Your task to perform on an android device: add a contact in the contacts app Image 0: 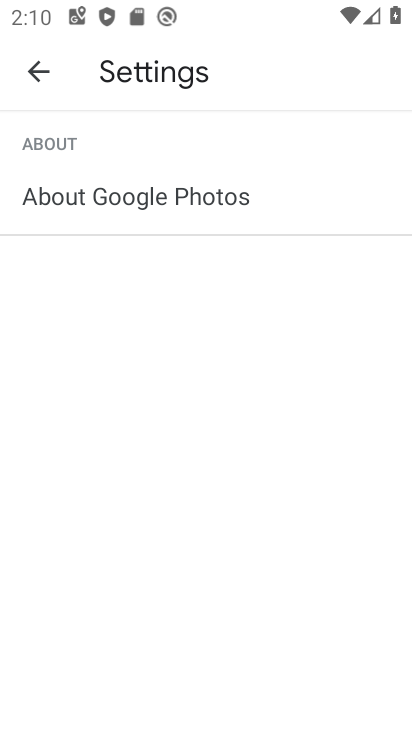
Step 0: press home button
Your task to perform on an android device: add a contact in the contacts app Image 1: 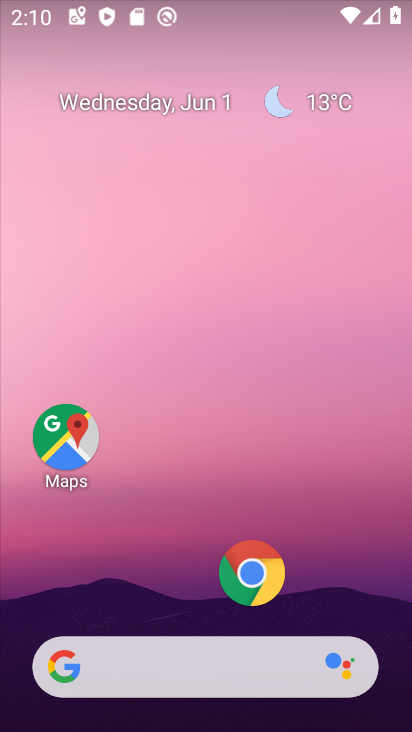
Step 1: drag from (209, 602) to (117, 0)
Your task to perform on an android device: add a contact in the contacts app Image 2: 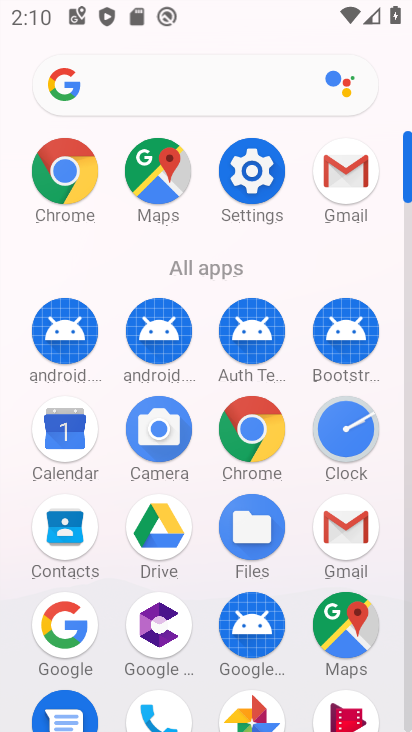
Step 2: click (138, 697)
Your task to perform on an android device: add a contact in the contacts app Image 3: 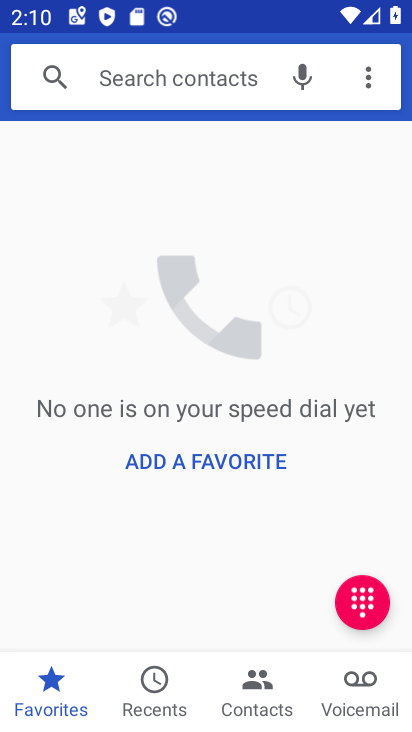
Step 3: click (263, 702)
Your task to perform on an android device: add a contact in the contacts app Image 4: 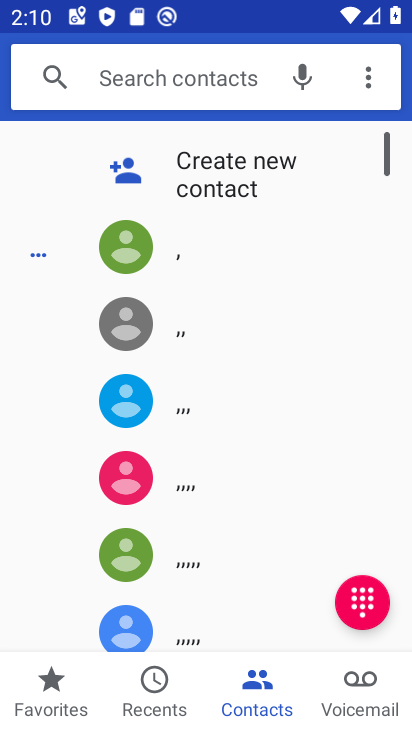
Step 4: click (273, 180)
Your task to perform on an android device: add a contact in the contacts app Image 5: 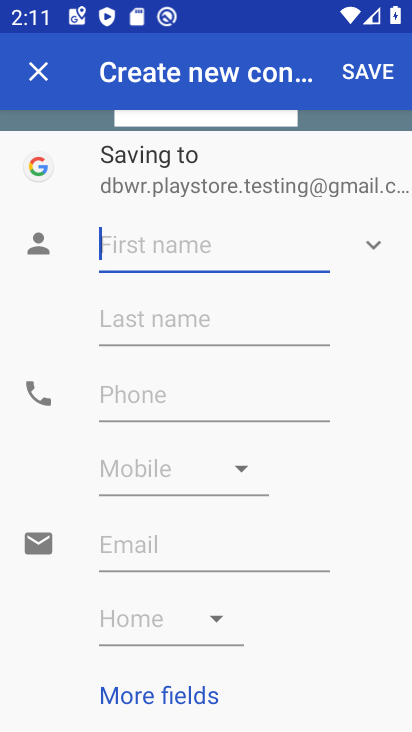
Step 5: type "dditional Actions"
Your task to perform on an android device: add a contact in the contacts app Image 6: 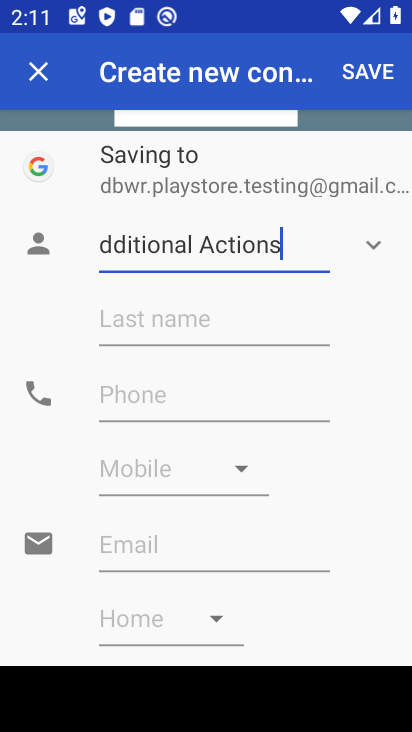
Step 6: type ""
Your task to perform on an android device: add a contact in the contacts app Image 7: 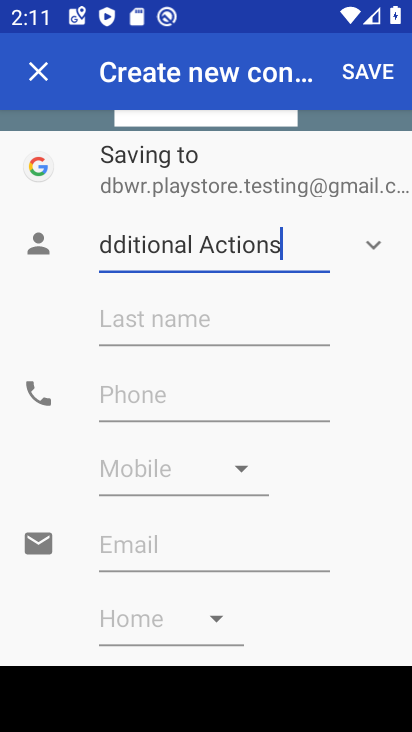
Step 7: click (244, 390)
Your task to perform on an android device: add a contact in the contacts app Image 8: 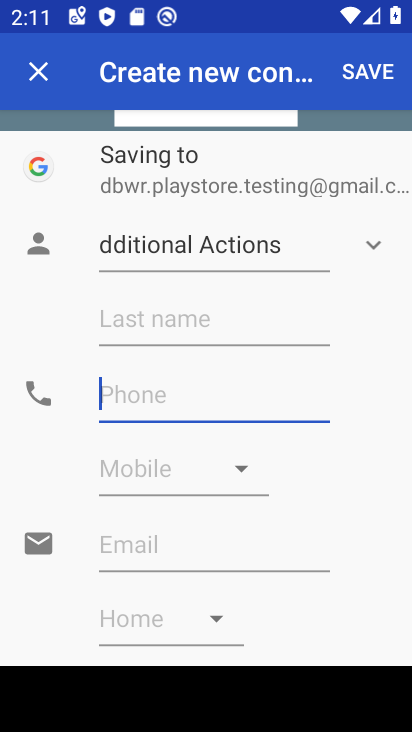
Step 8: type "2017"
Your task to perform on an android device: add a contact in the contacts app Image 9: 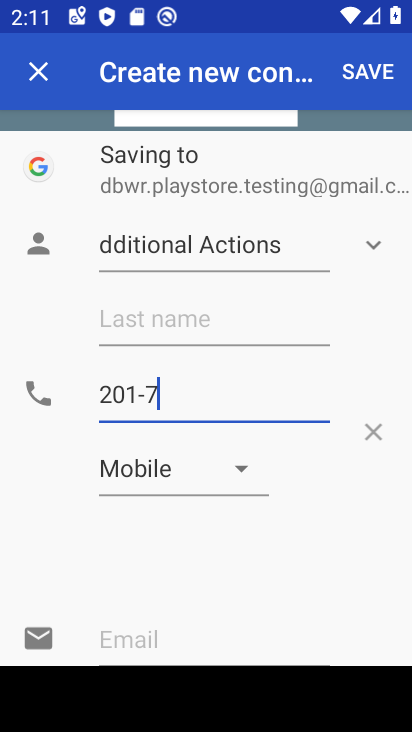
Step 9: type ""
Your task to perform on an android device: add a contact in the contacts app Image 10: 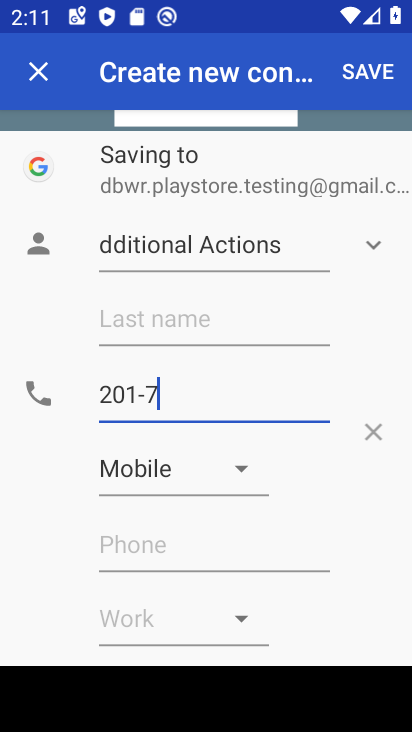
Step 10: click (363, 68)
Your task to perform on an android device: add a contact in the contacts app Image 11: 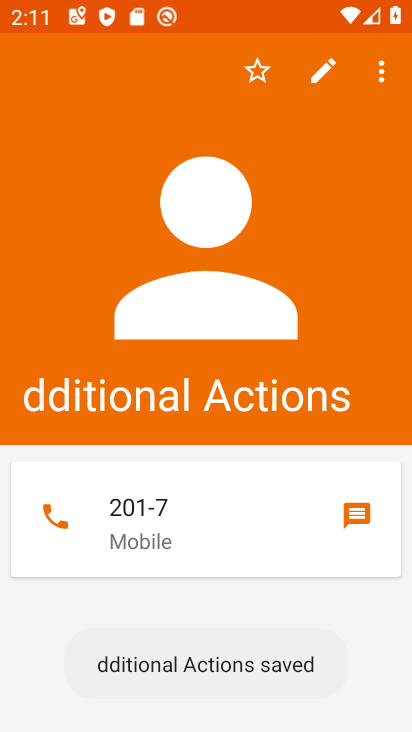
Step 11: task complete